Your task to perform on an android device: Search for usb-c to usb-b on bestbuy.com, select the first entry, and add it to the cart. Image 0: 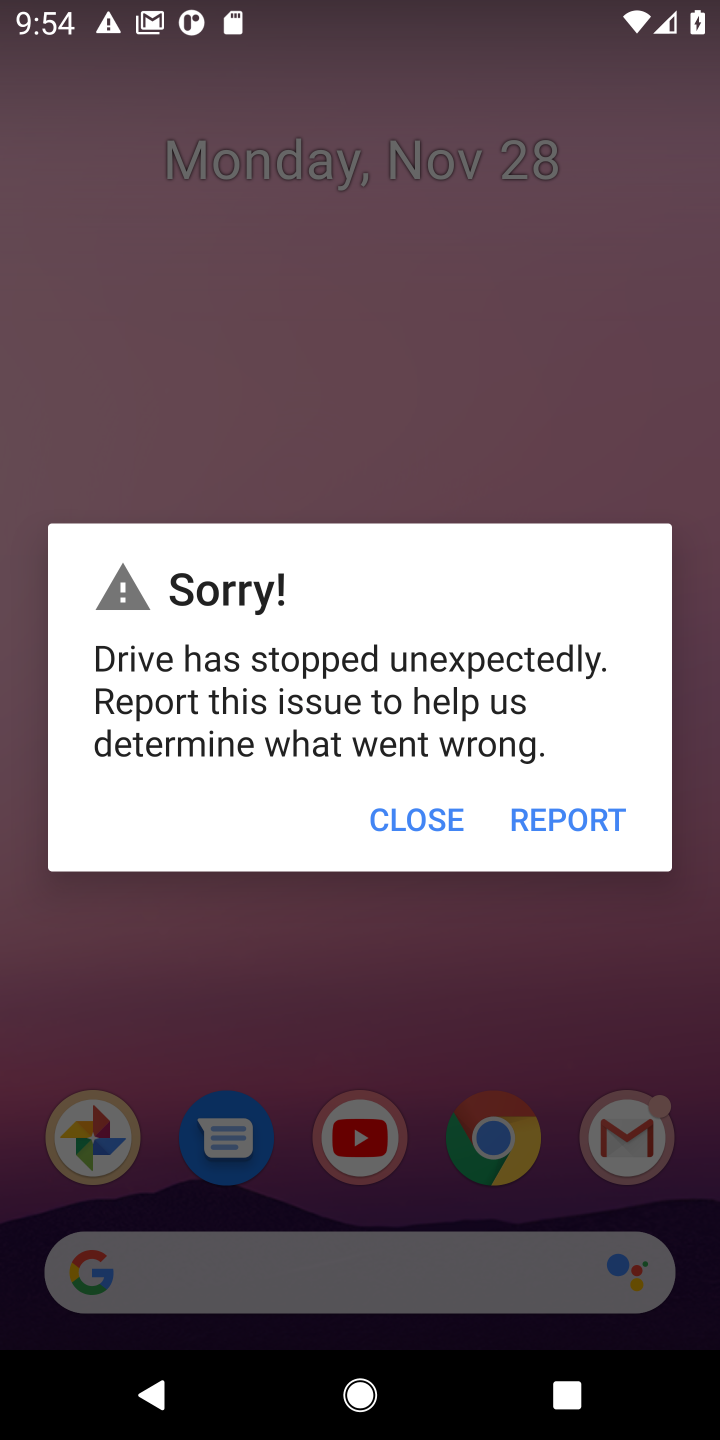
Step 0: press home button
Your task to perform on an android device: Search for usb-c to usb-b on bestbuy.com, select the first entry, and add it to the cart. Image 1: 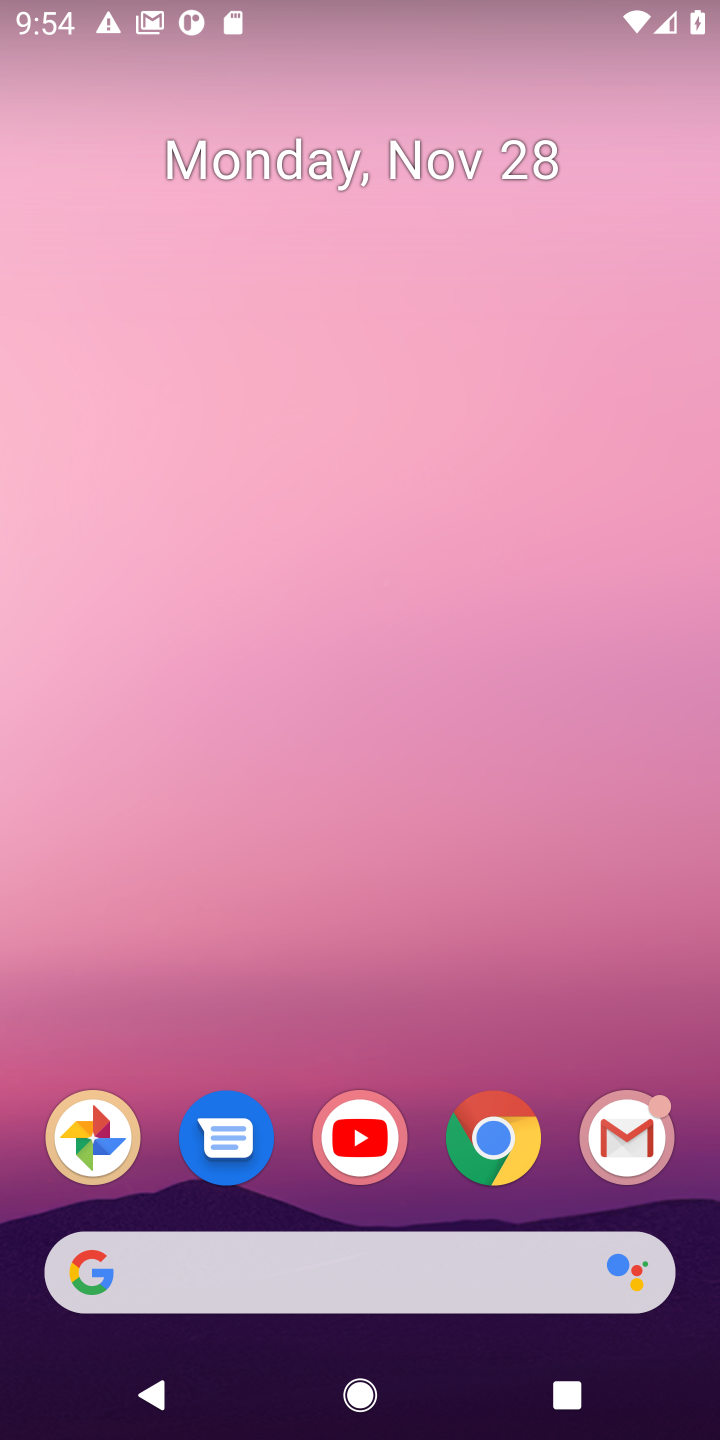
Step 1: click (491, 1177)
Your task to perform on an android device: Search for usb-c to usb-b on bestbuy.com, select the first entry, and add it to the cart. Image 2: 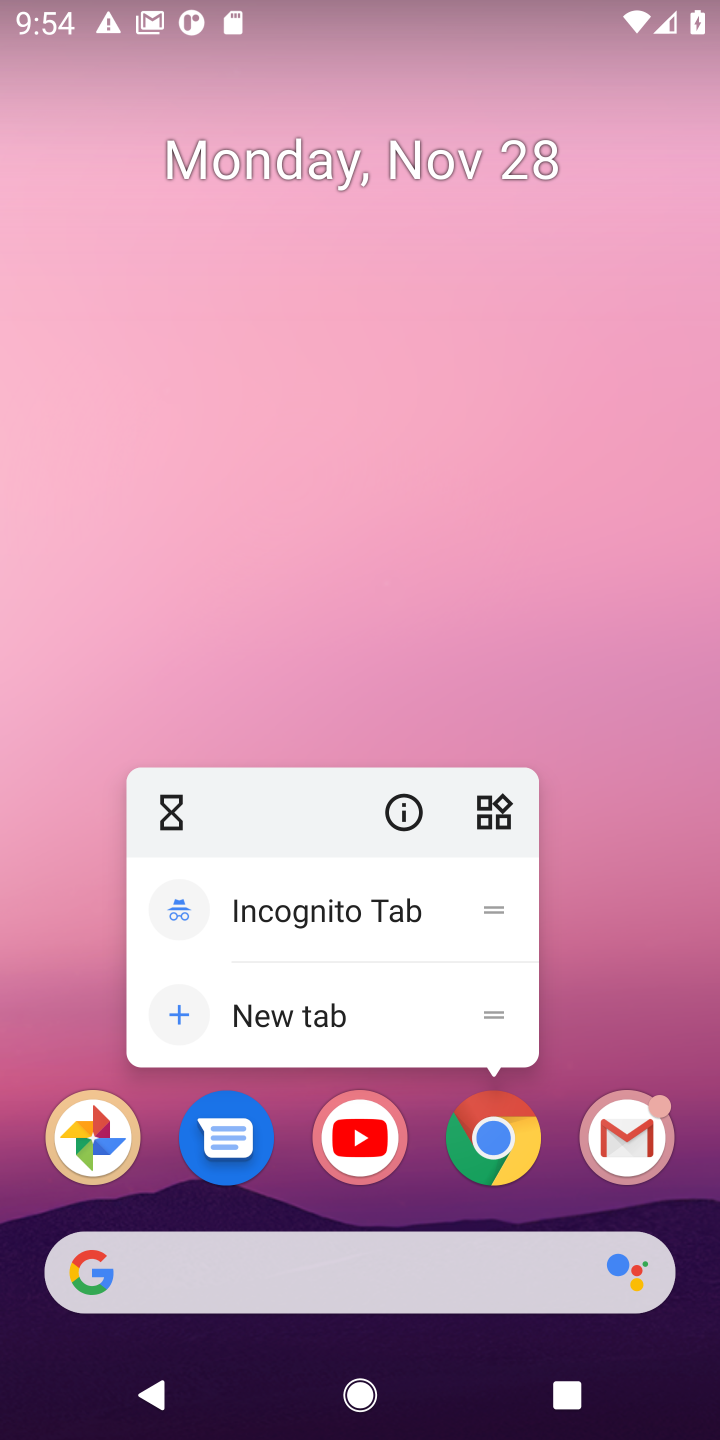
Step 2: click (485, 1141)
Your task to perform on an android device: Search for usb-c to usb-b on bestbuy.com, select the first entry, and add it to the cart. Image 3: 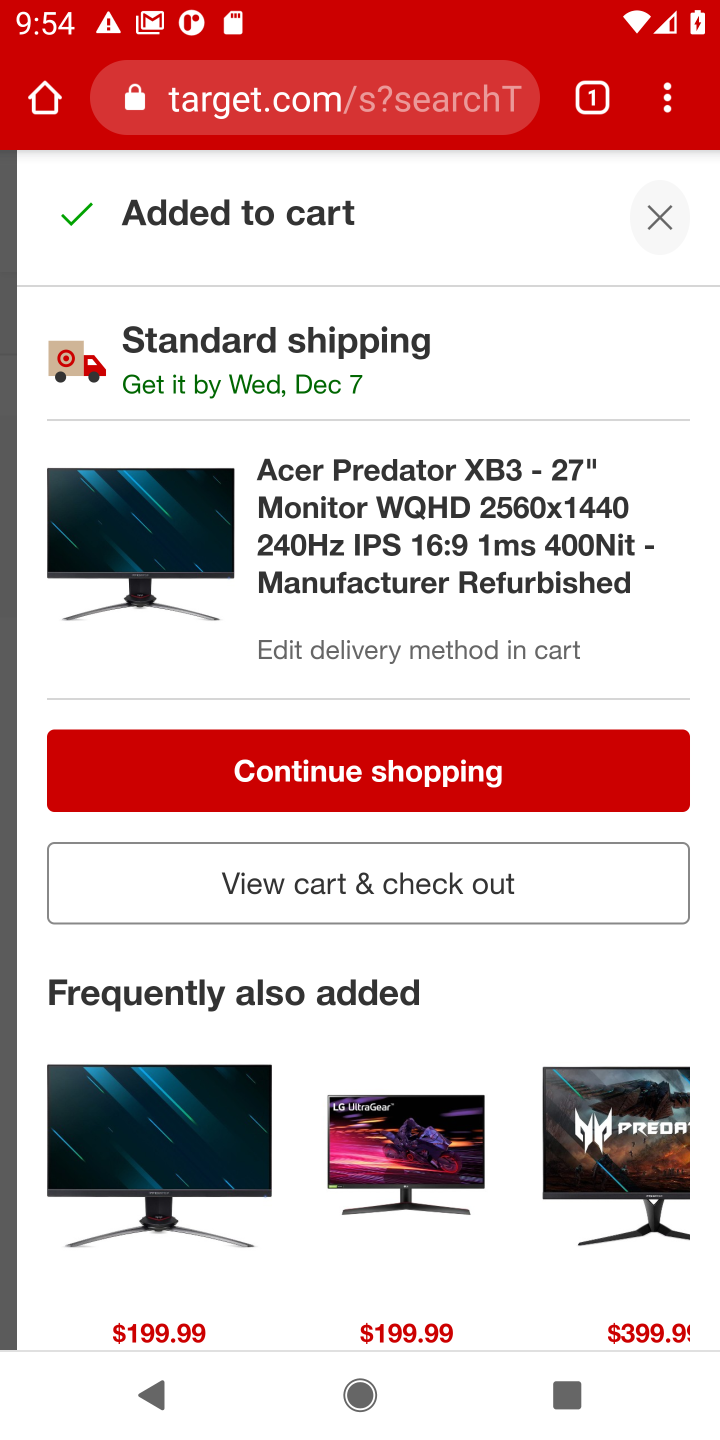
Step 3: click (279, 116)
Your task to perform on an android device: Search for usb-c to usb-b on bestbuy.com, select the first entry, and add it to the cart. Image 4: 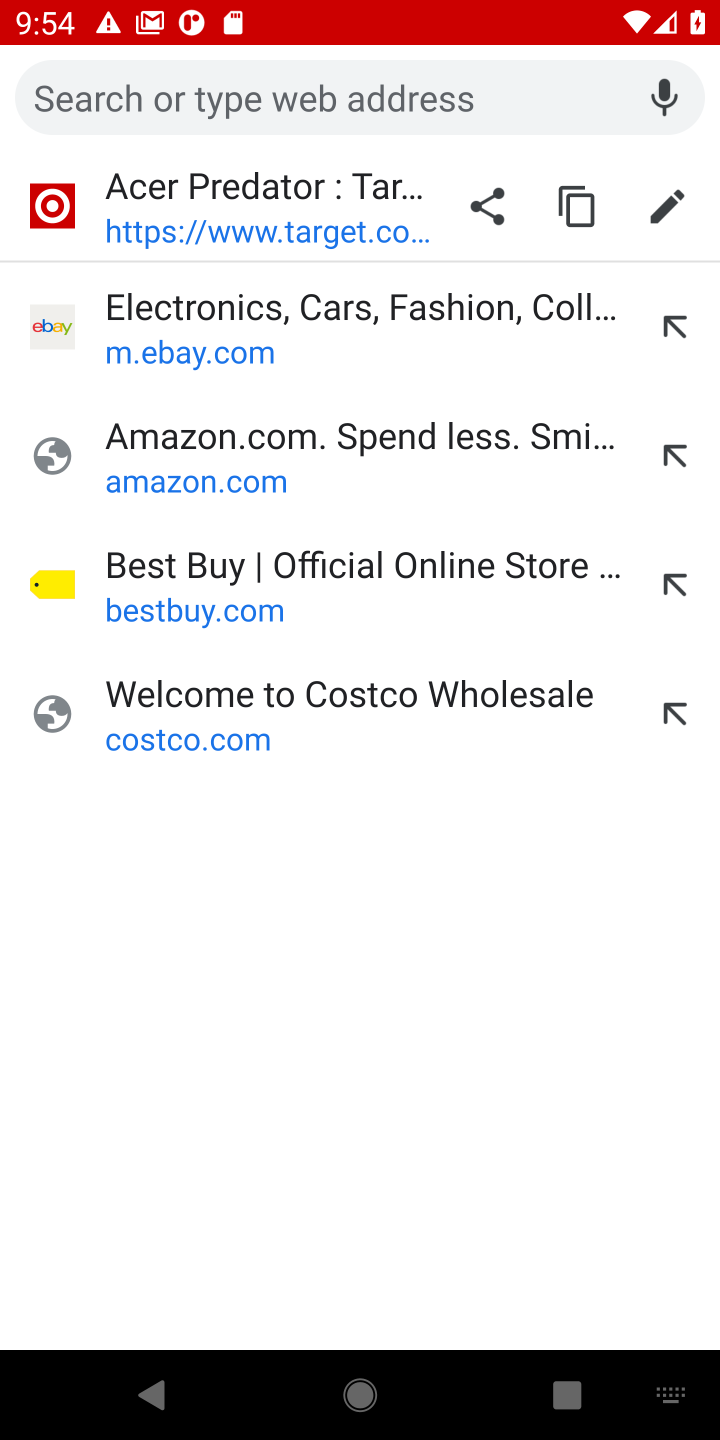
Step 4: click (154, 595)
Your task to perform on an android device: Search for usb-c to usb-b on bestbuy.com, select the first entry, and add it to the cart. Image 5: 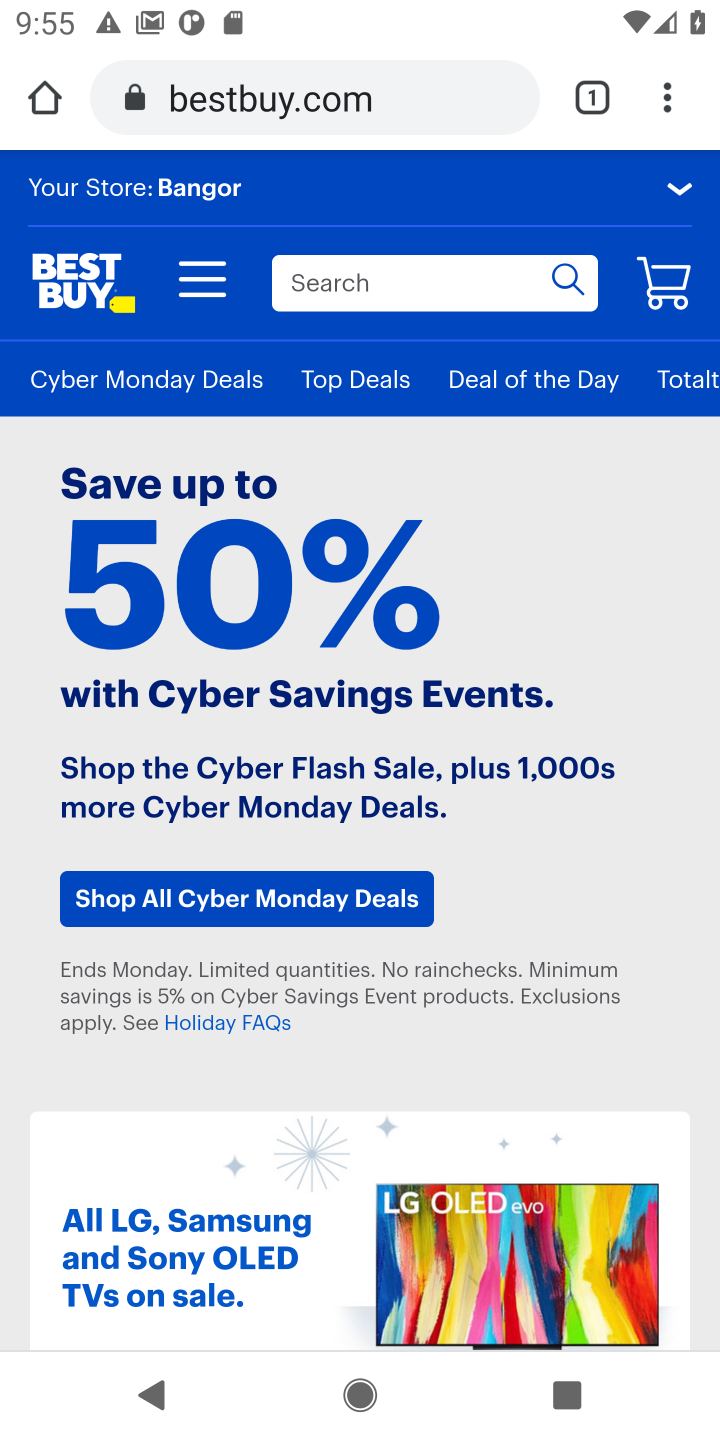
Step 5: click (394, 298)
Your task to perform on an android device: Search for usb-c to usb-b on bestbuy.com, select the first entry, and add it to the cart. Image 6: 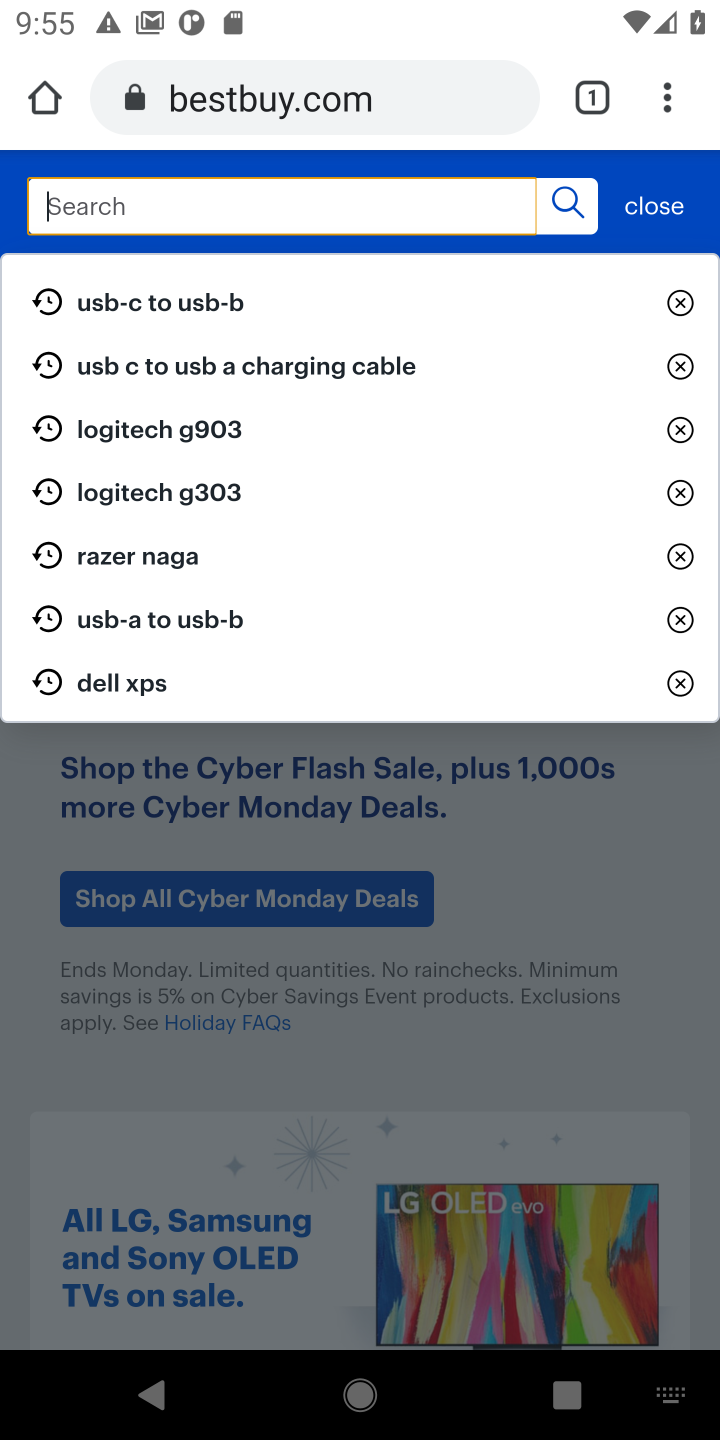
Step 6: click (150, 300)
Your task to perform on an android device: Search for usb-c to usb-b on bestbuy.com, select the first entry, and add it to the cart. Image 7: 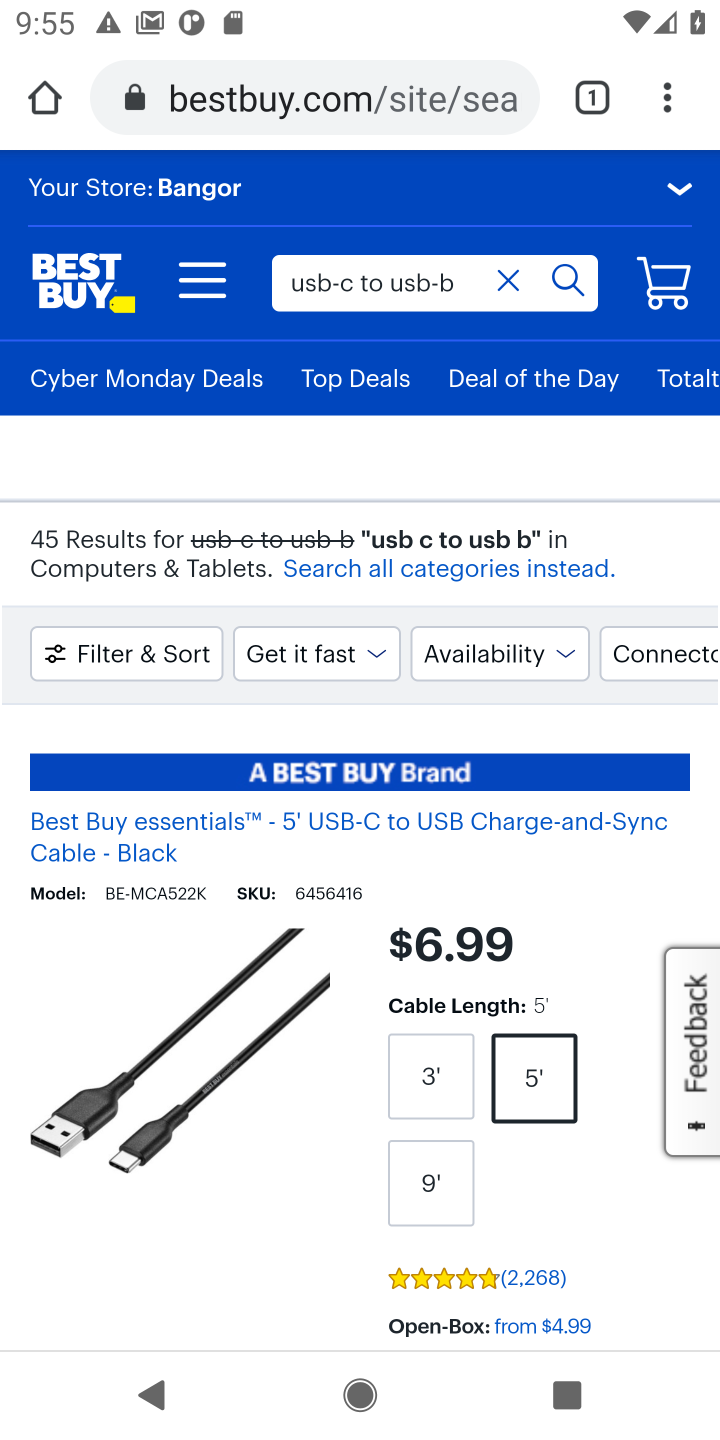
Step 7: task complete